Your task to perform on an android device: empty trash in google photos Image 0: 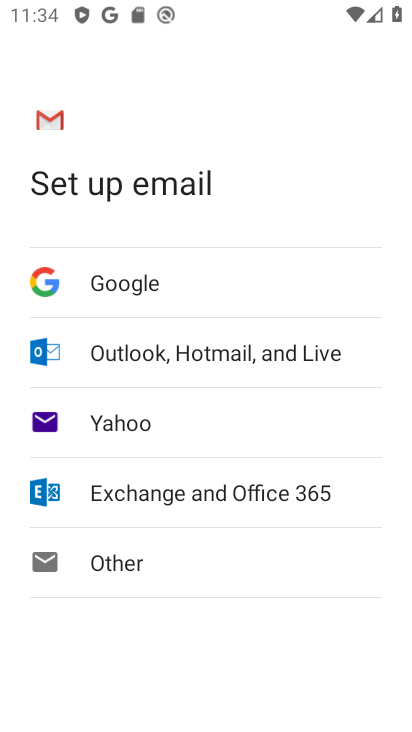
Step 0: press home button
Your task to perform on an android device: empty trash in google photos Image 1: 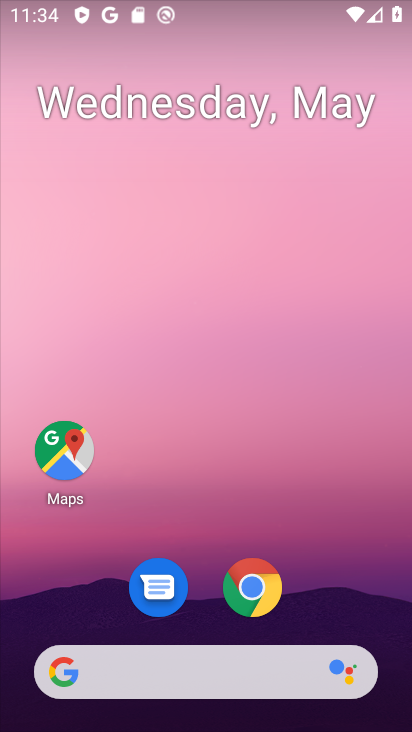
Step 1: drag from (364, 594) to (262, 3)
Your task to perform on an android device: empty trash in google photos Image 2: 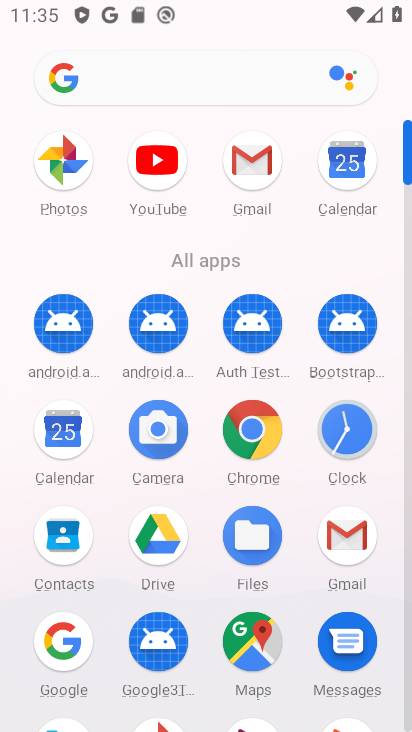
Step 2: drag from (176, 259) to (176, 8)
Your task to perform on an android device: empty trash in google photos Image 3: 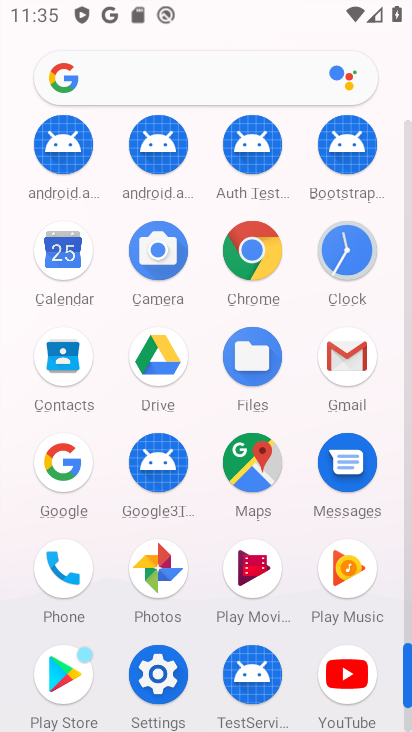
Step 3: click (153, 567)
Your task to perform on an android device: empty trash in google photos Image 4: 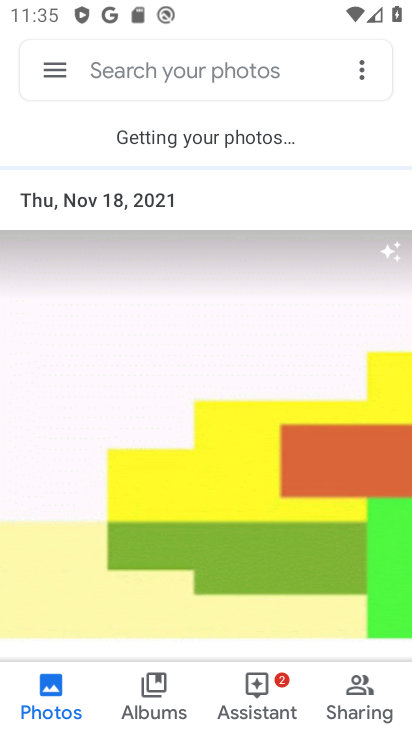
Step 4: drag from (408, 392) to (66, 46)
Your task to perform on an android device: empty trash in google photos Image 5: 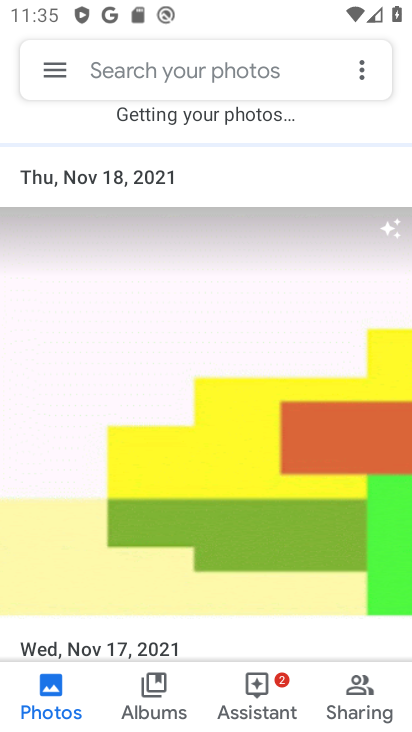
Step 5: click (55, 60)
Your task to perform on an android device: empty trash in google photos Image 6: 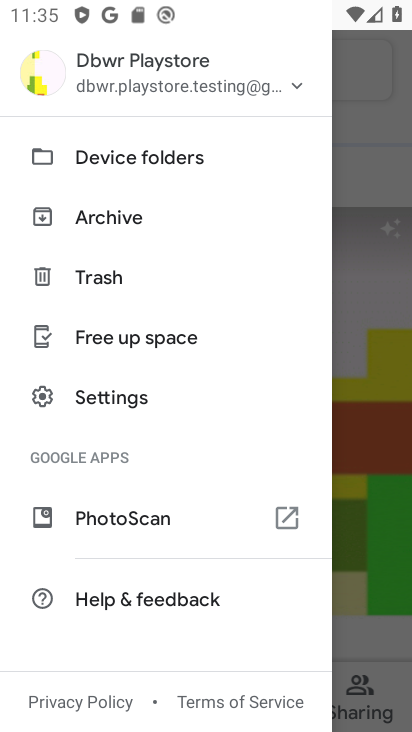
Step 6: click (142, 265)
Your task to perform on an android device: empty trash in google photos Image 7: 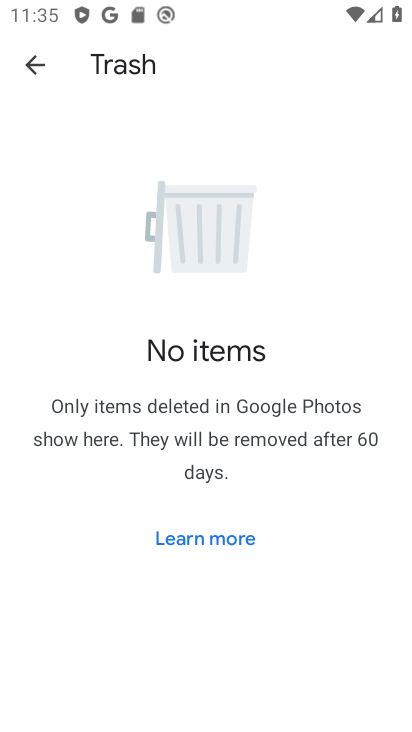
Step 7: task complete